Your task to perform on an android device: Open the map Image 0: 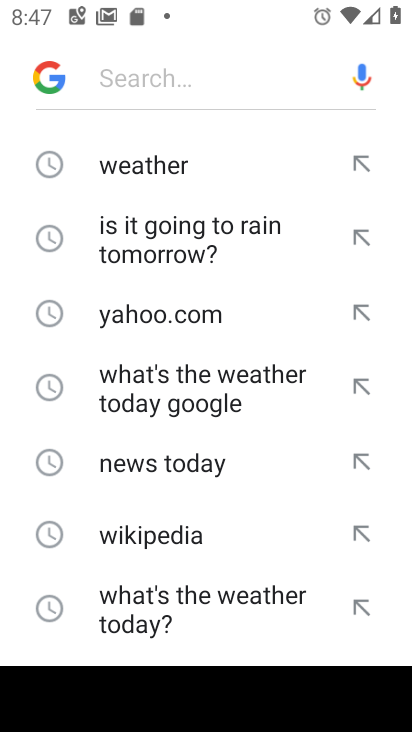
Step 0: press home button
Your task to perform on an android device: Open the map Image 1: 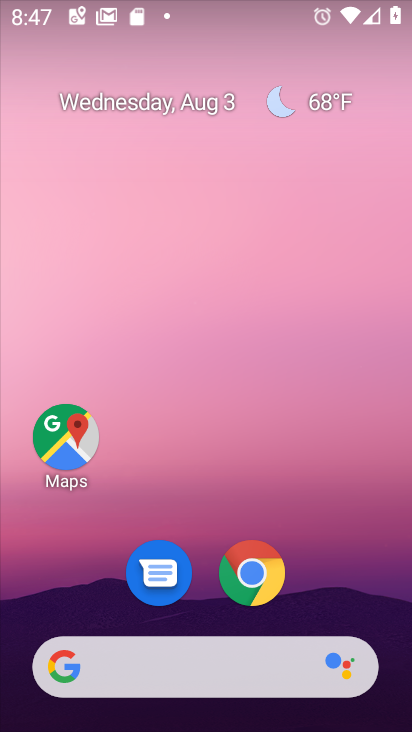
Step 1: click (67, 439)
Your task to perform on an android device: Open the map Image 2: 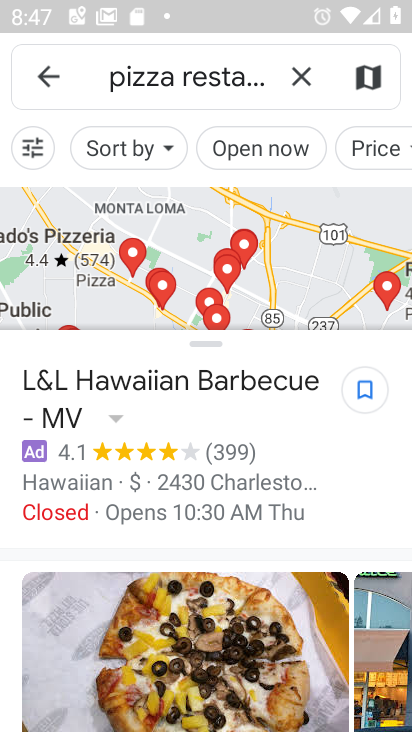
Step 2: task complete